Your task to perform on an android device: Show me popular videos on Youtube Image 0: 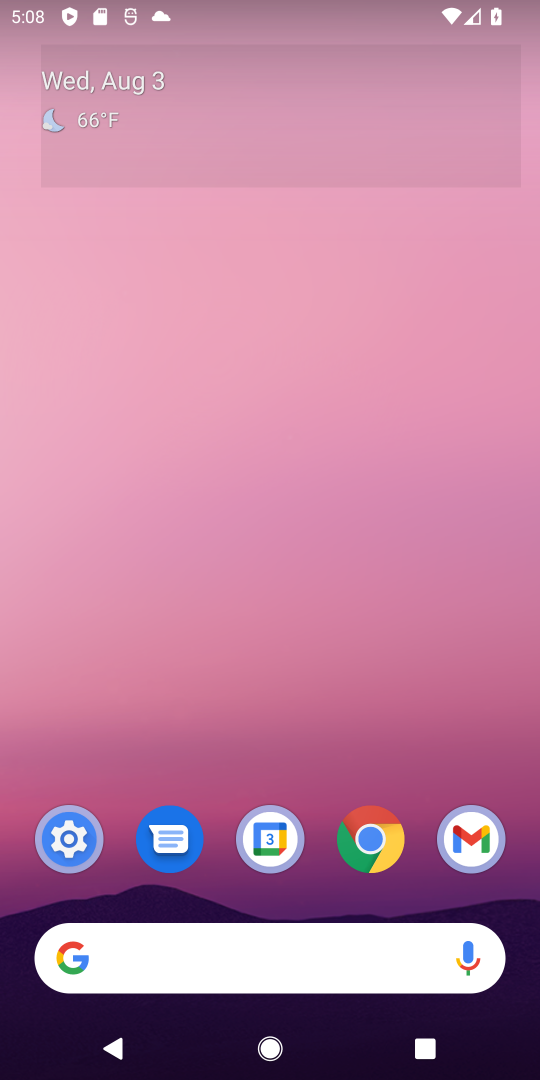
Step 0: drag from (167, 641) to (257, 11)
Your task to perform on an android device: Show me popular videos on Youtube Image 1: 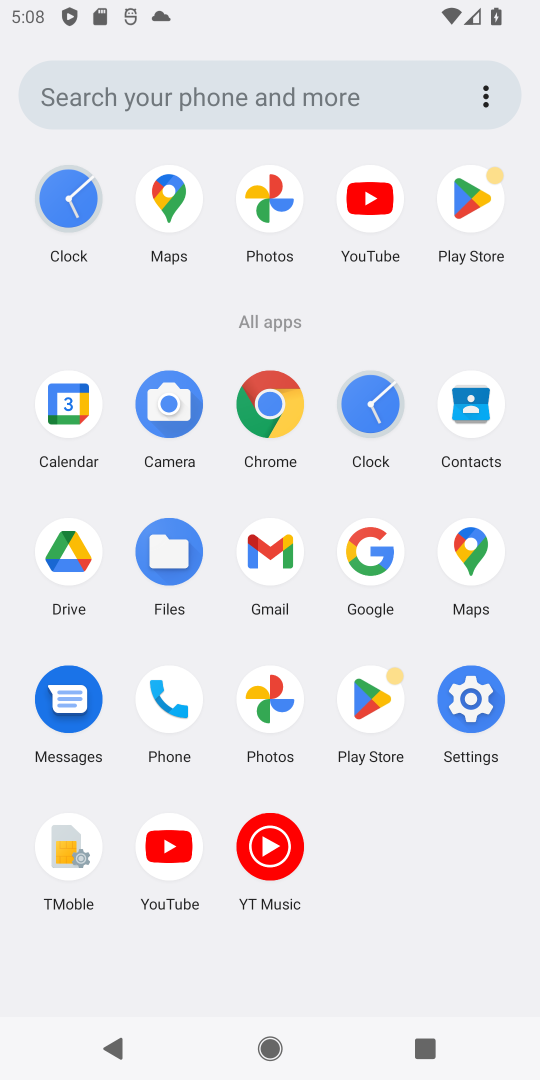
Step 1: click (380, 210)
Your task to perform on an android device: Show me popular videos on Youtube Image 2: 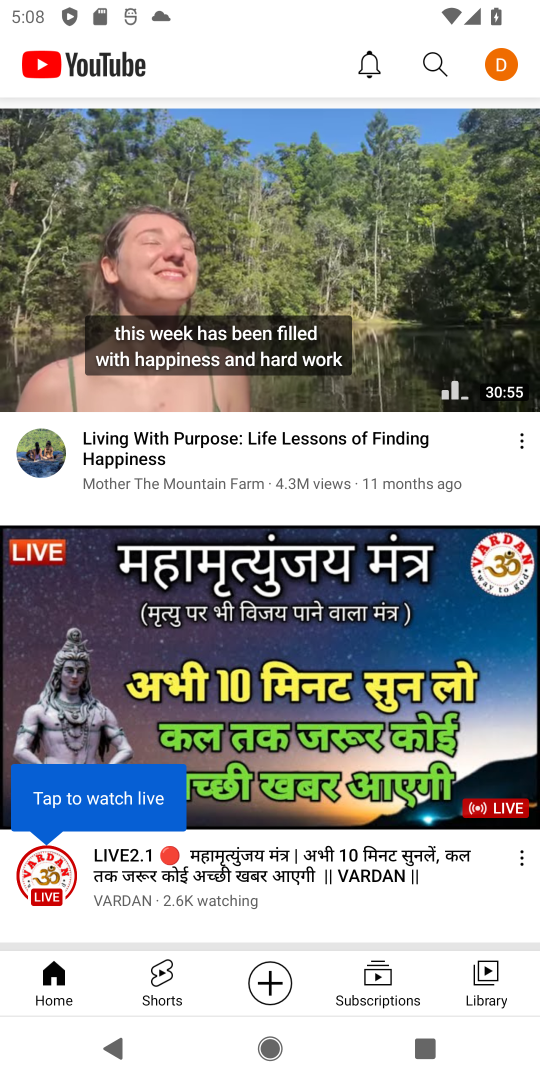
Step 2: click (47, 991)
Your task to perform on an android device: Show me popular videos on Youtube Image 3: 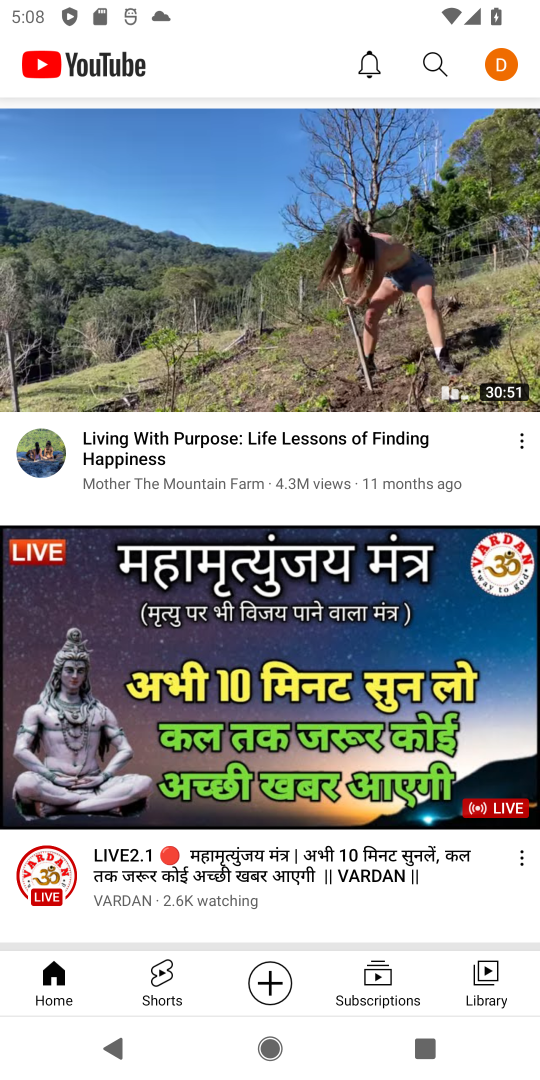
Step 3: drag from (334, 268) to (365, 828)
Your task to perform on an android device: Show me popular videos on Youtube Image 4: 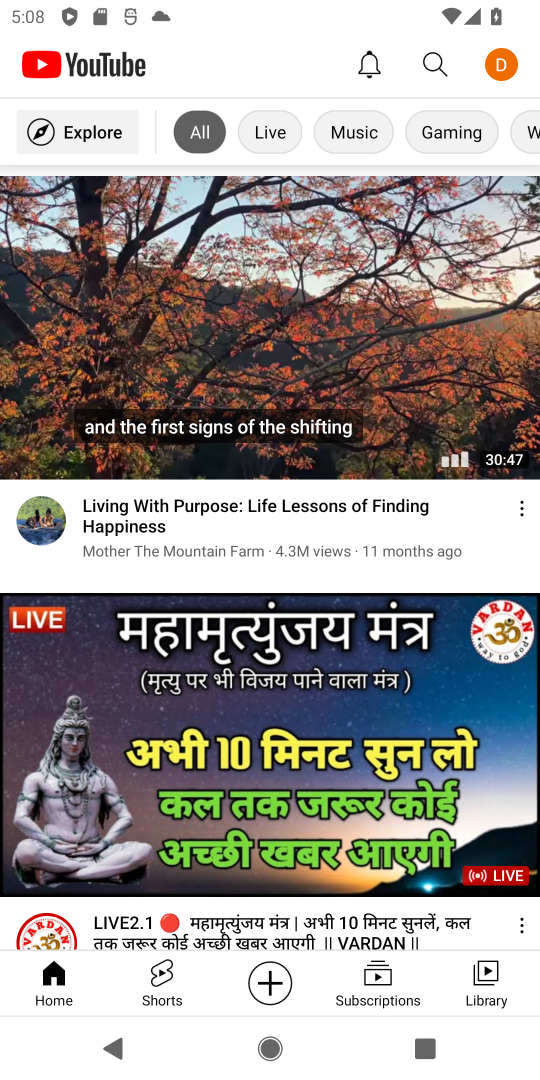
Step 4: click (92, 134)
Your task to perform on an android device: Show me popular videos on Youtube Image 5: 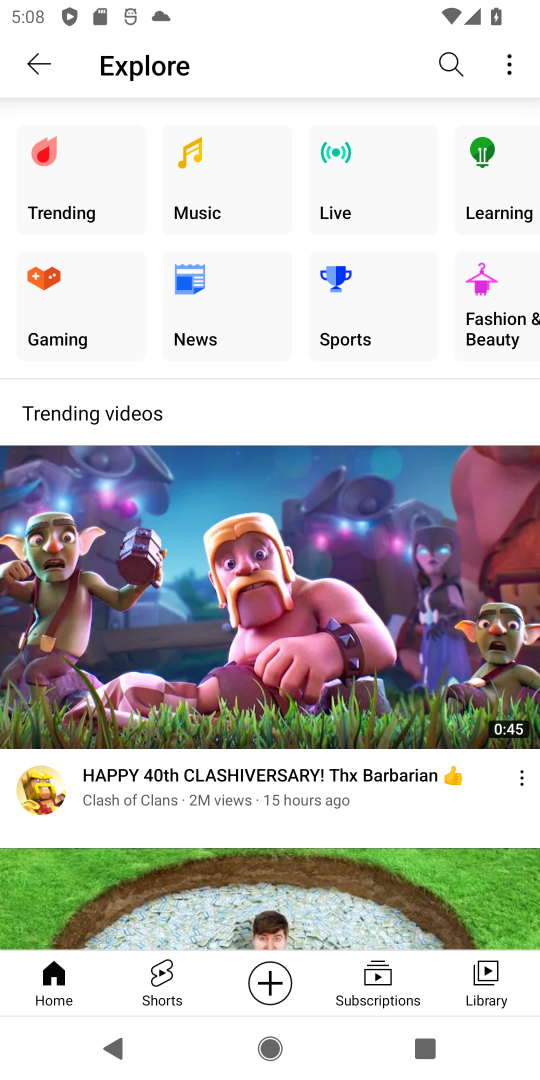
Step 5: click (48, 159)
Your task to perform on an android device: Show me popular videos on Youtube Image 6: 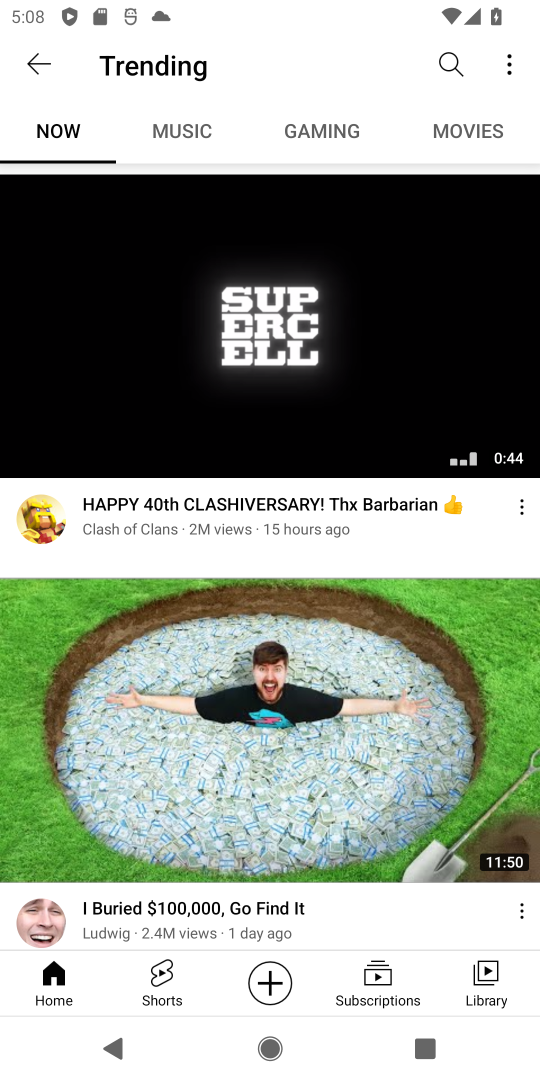
Step 6: task complete